Your task to perform on an android device: Open Google Chrome Image 0: 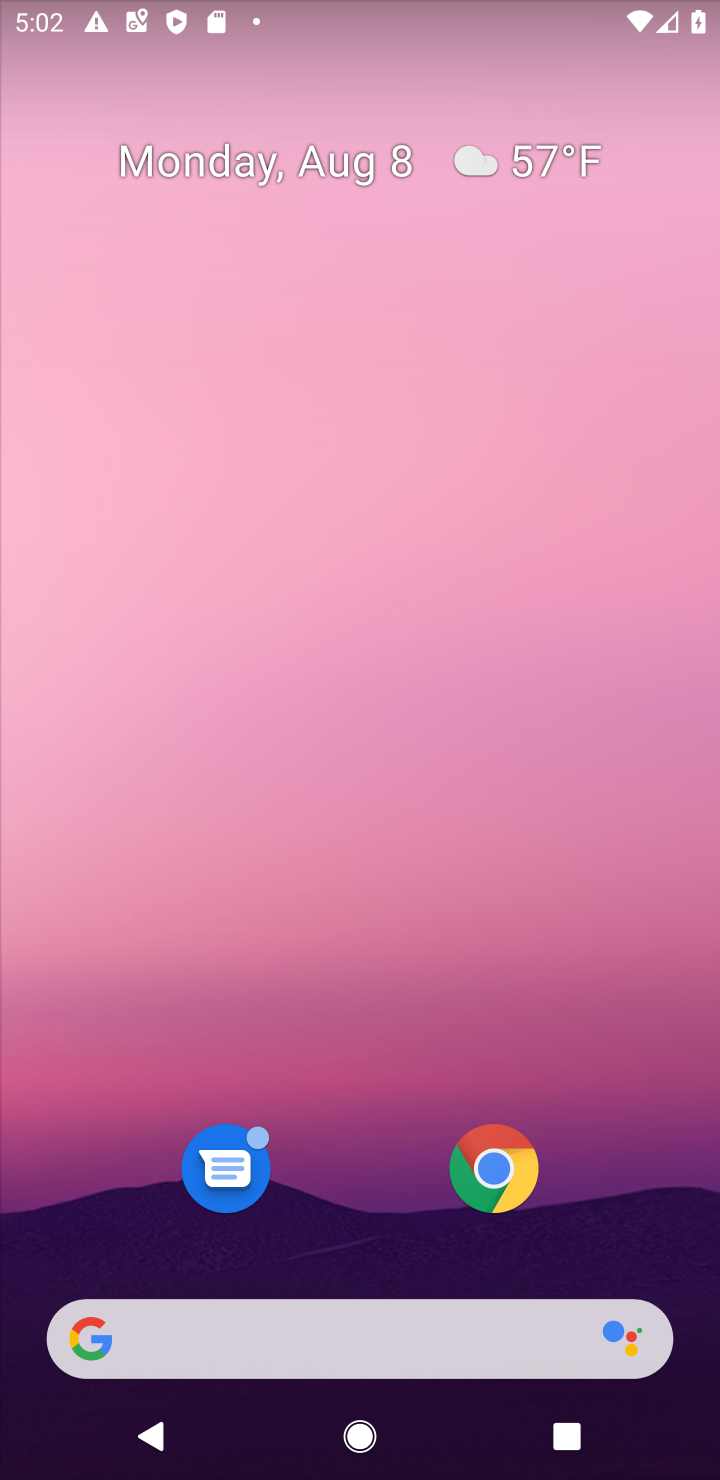
Step 0: click (563, 1175)
Your task to perform on an android device: Open Google Chrome Image 1: 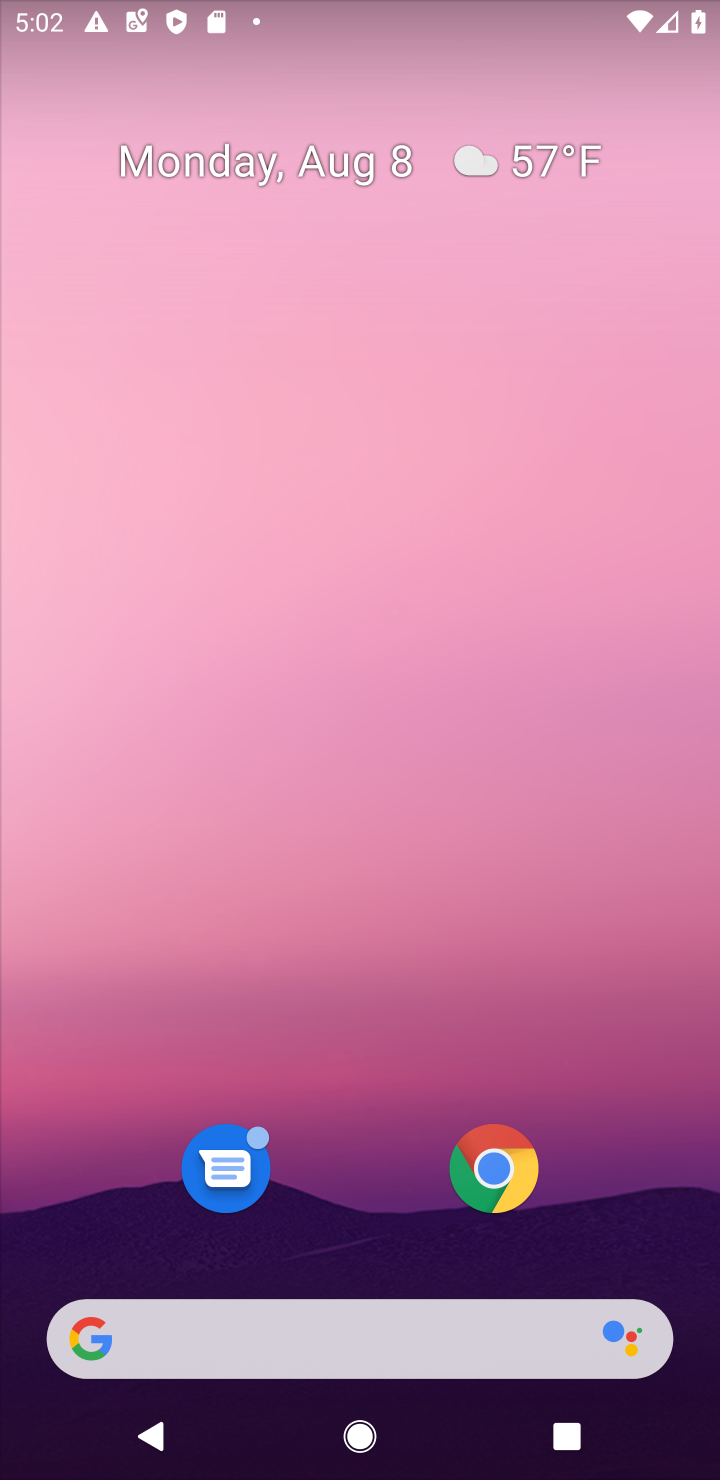
Step 1: click (501, 1193)
Your task to perform on an android device: Open Google Chrome Image 2: 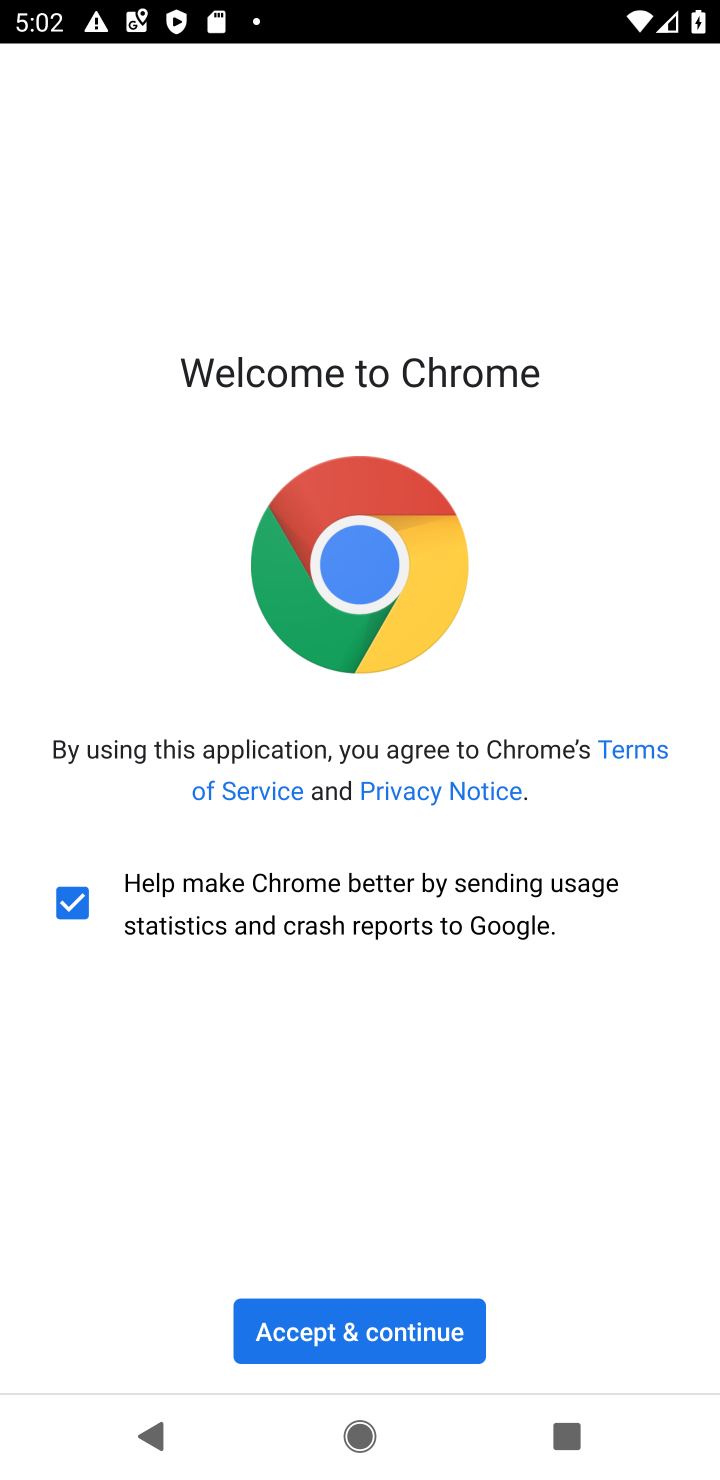
Step 2: press home button
Your task to perform on an android device: Open Google Chrome Image 3: 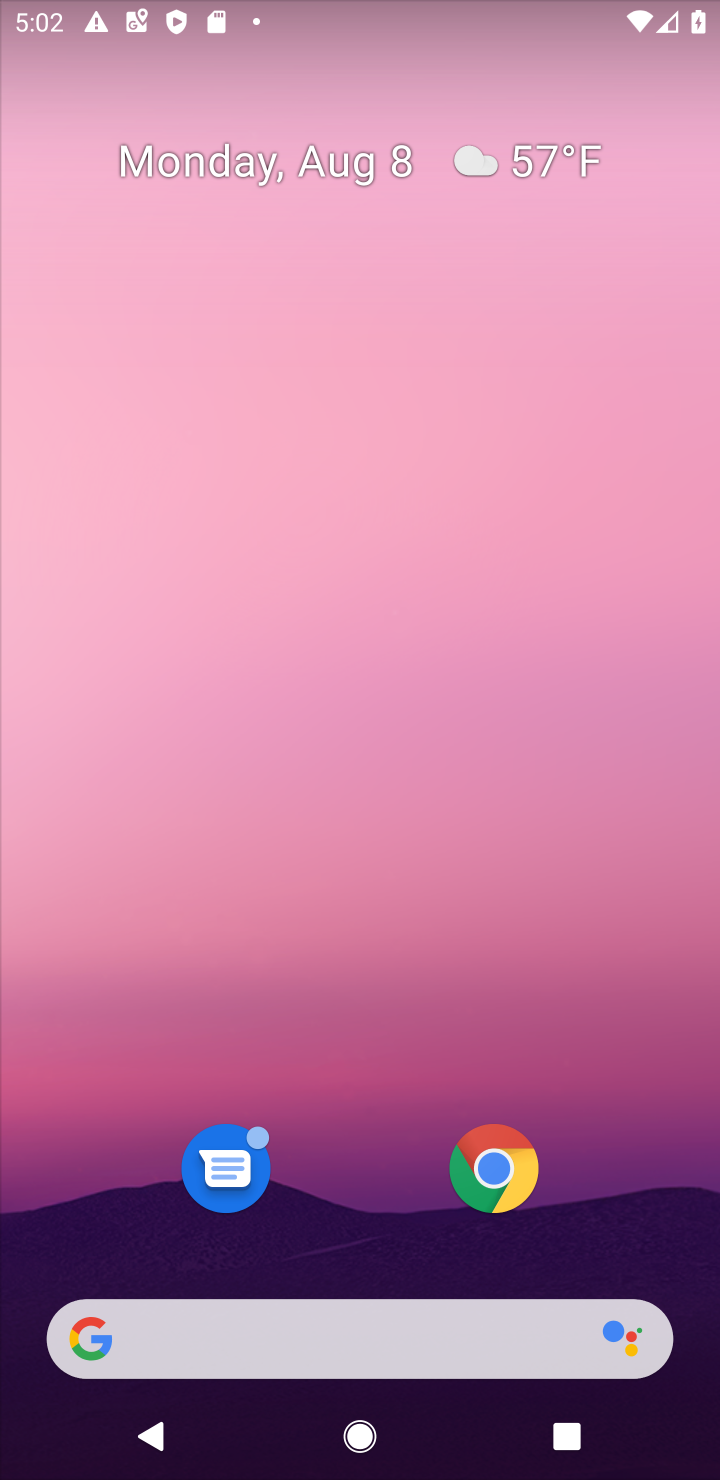
Step 3: click (504, 1192)
Your task to perform on an android device: Open Google Chrome Image 4: 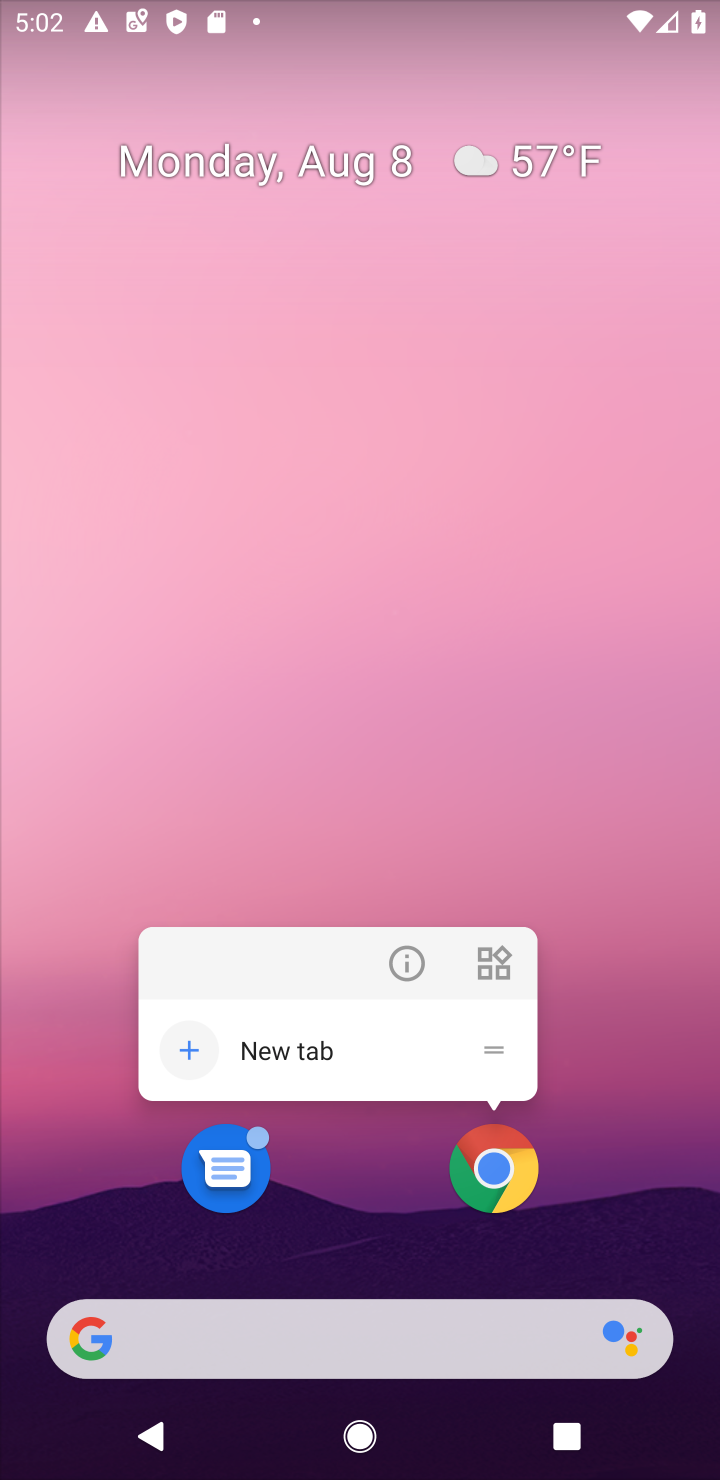
Step 4: click (495, 1167)
Your task to perform on an android device: Open Google Chrome Image 5: 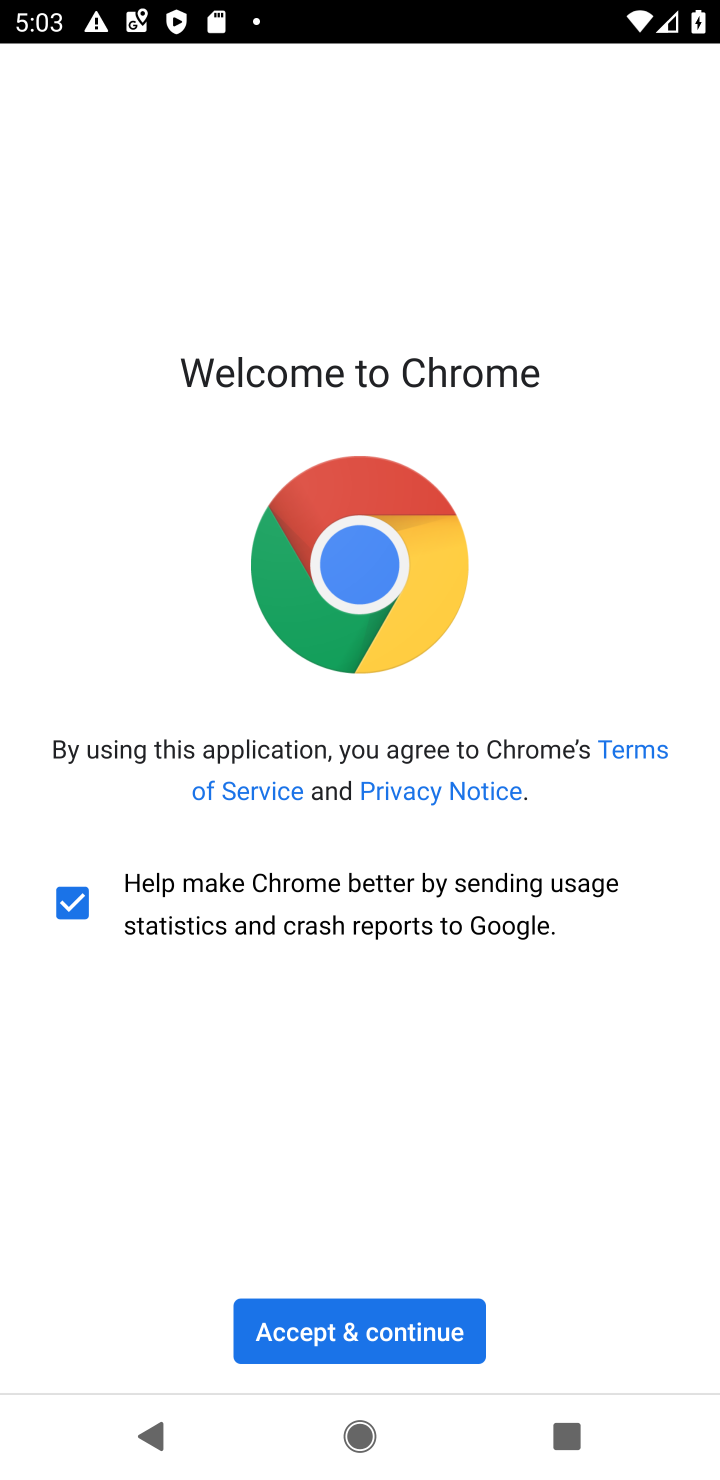
Step 5: click (329, 1334)
Your task to perform on an android device: Open Google Chrome Image 6: 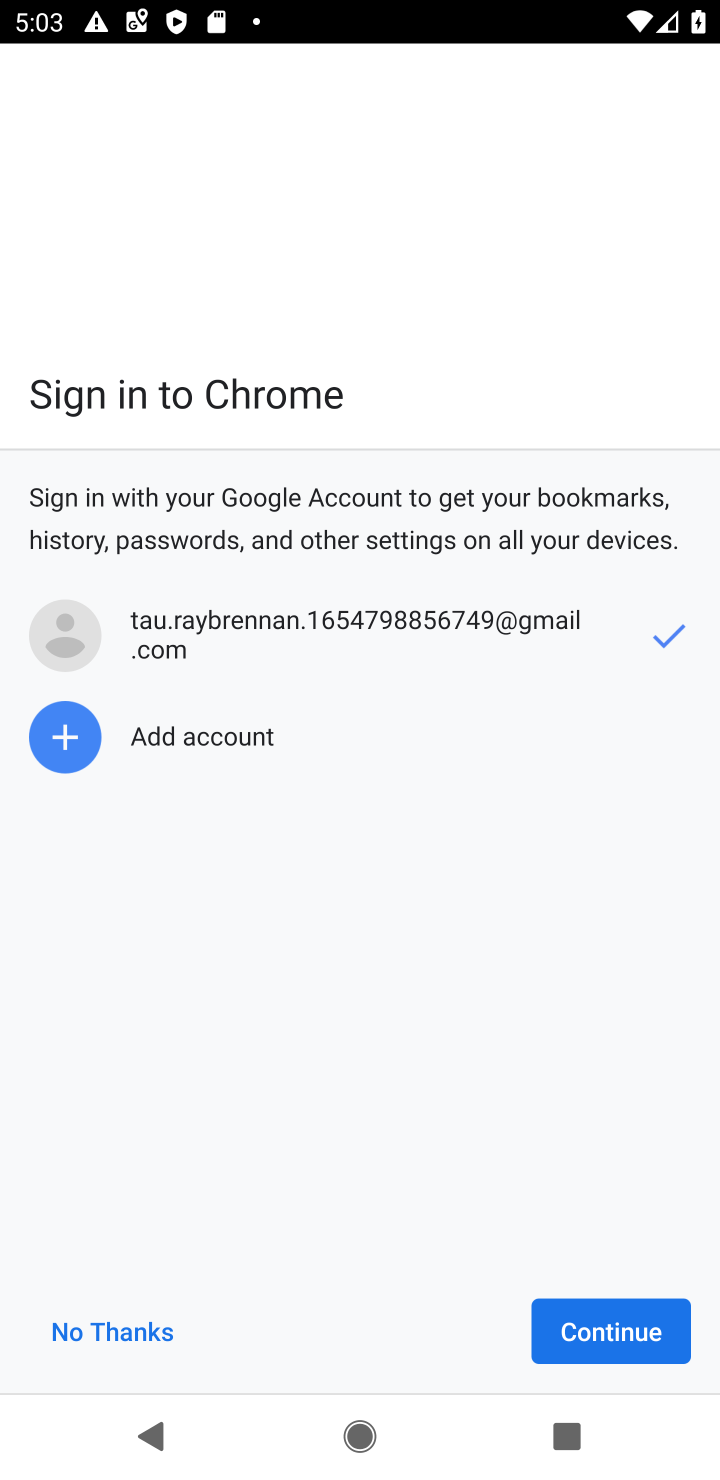
Step 6: click (567, 1344)
Your task to perform on an android device: Open Google Chrome Image 7: 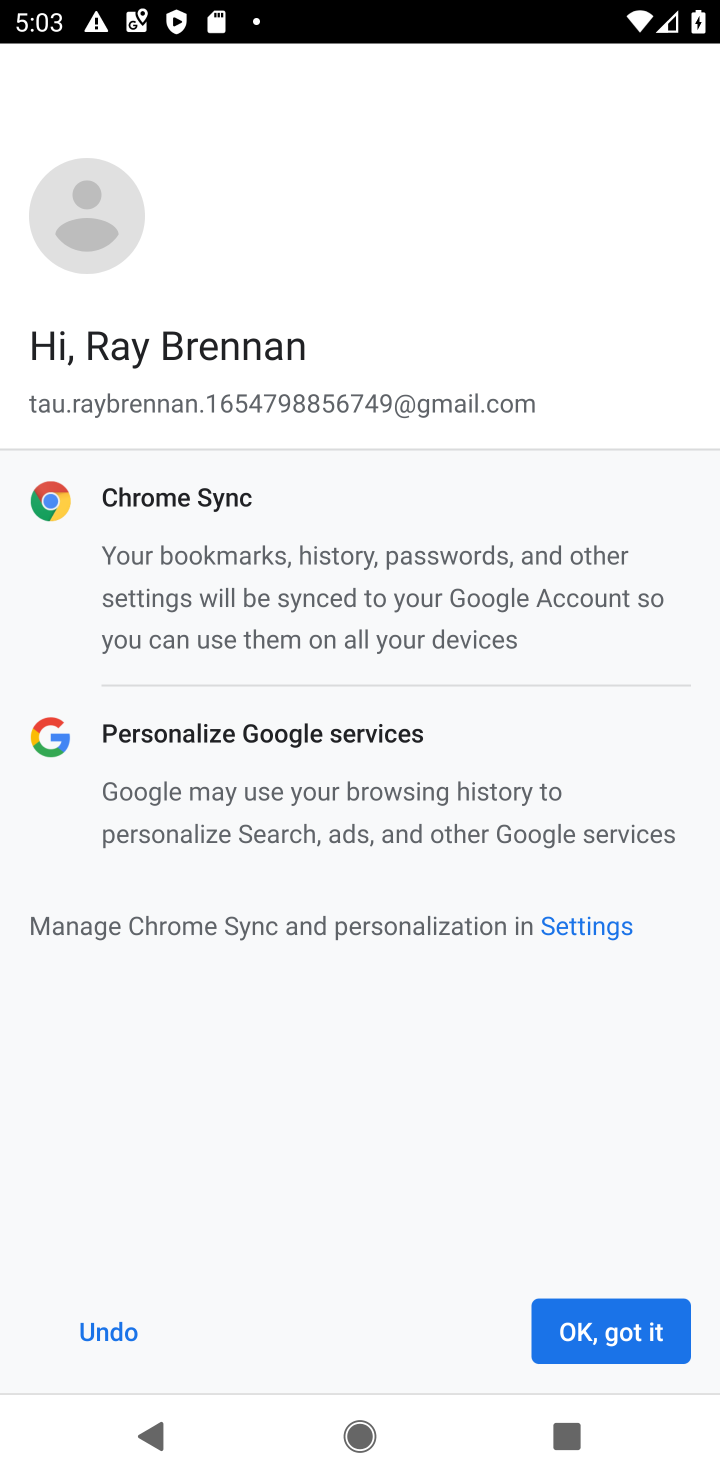
Step 7: click (555, 1321)
Your task to perform on an android device: Open Google Chrome Image 8: 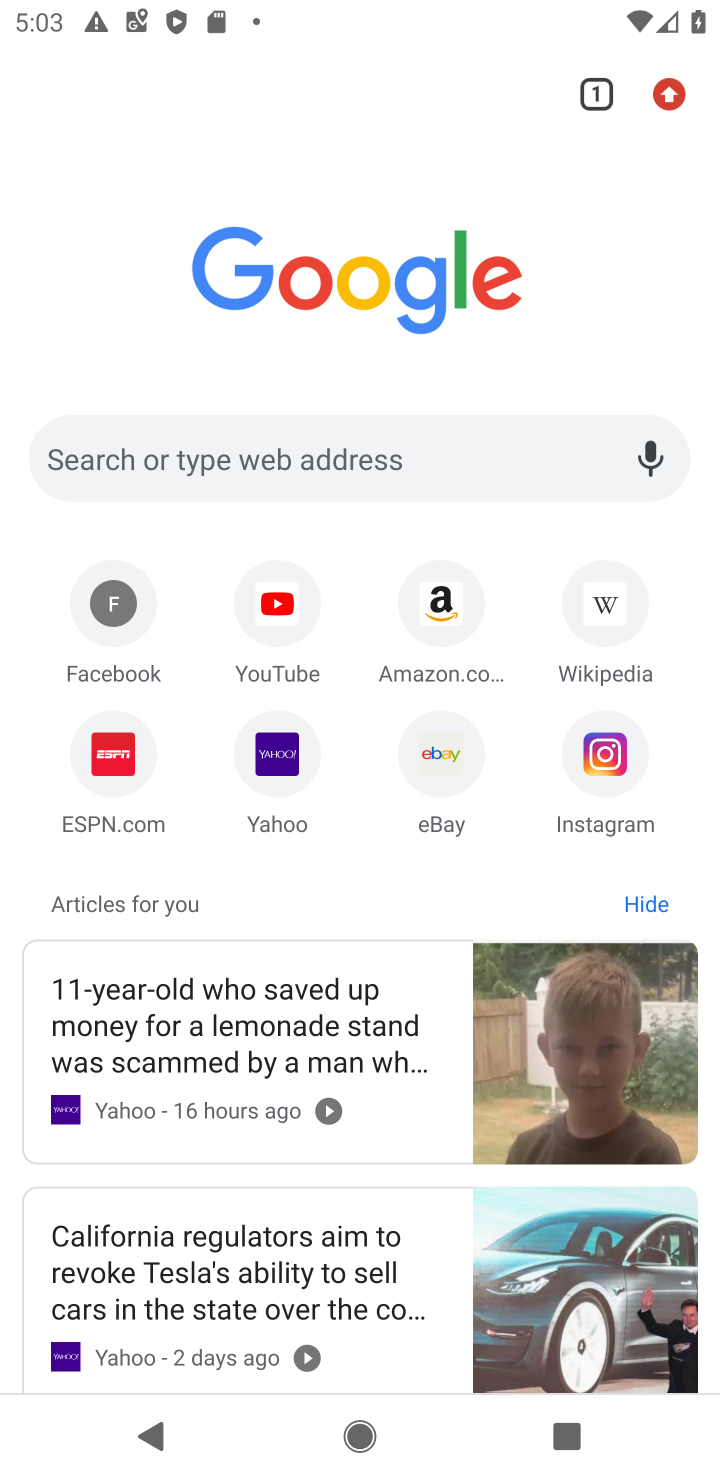
Step 8: task complete